Your task to perform on an android device: turn pop-ups off in chrome Image 0: 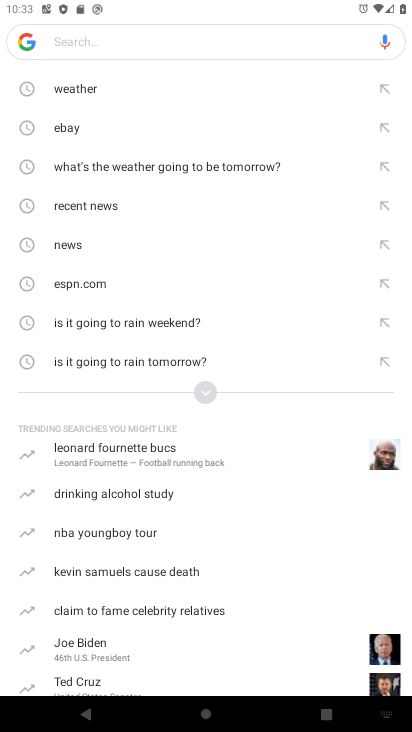
Step 0: press home button
Your task to perform on an android device: turn pop-ups off in chrome Image 1: 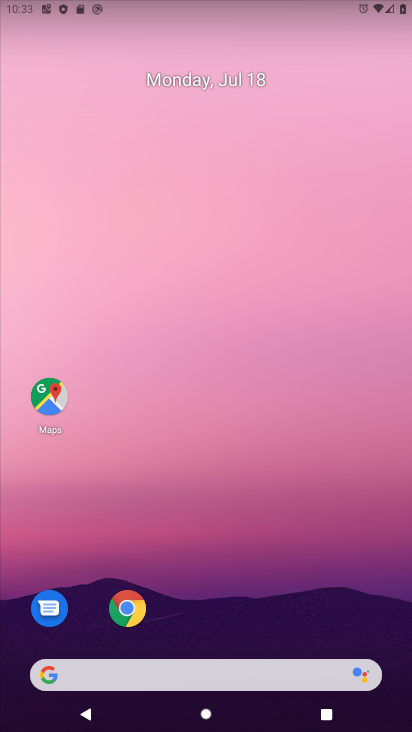
Step 1: click (122, 609)
Your task to perform on an android device: turn pop-ups off in chrome Image 2: 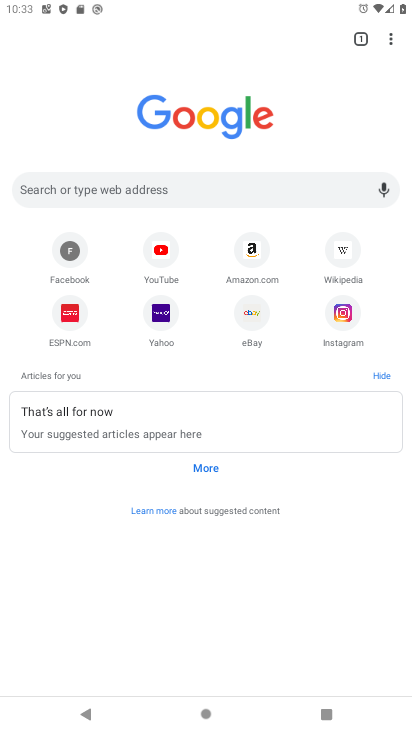
Step 2: click (396, 35)
Your task to perform on an android device: turn pop-ups off in chrome Image 3: 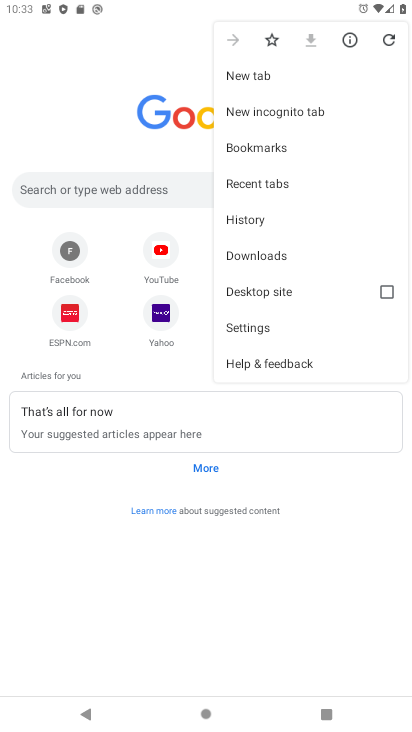
Step 3: click (267, 329)
Your task to perform on an android device: turn pop-ups off in chrome Image 4: 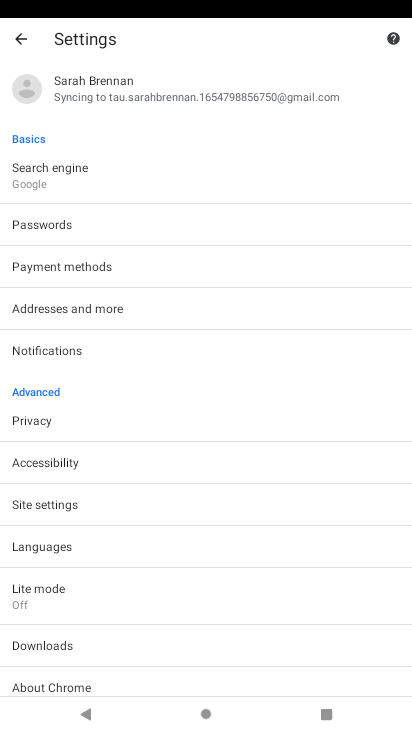
Step 4: click (37, 511)
Your task to perform on an android device: turn pop-ups off in chrome Image 5: 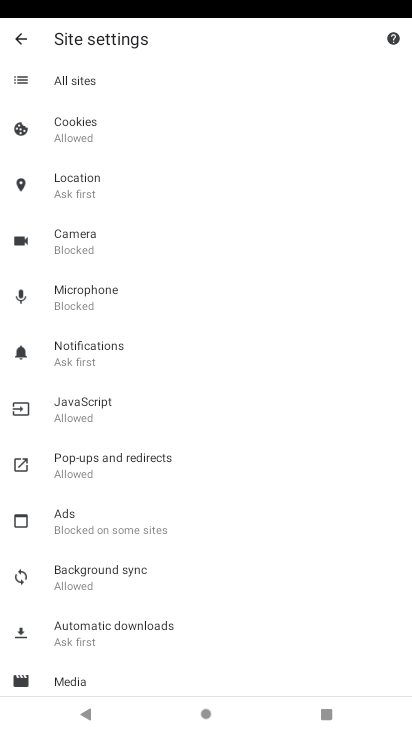
Step 5: click (65, 467)
Your task to perform on an android device: turn pop-ups off in chrome Image 6: 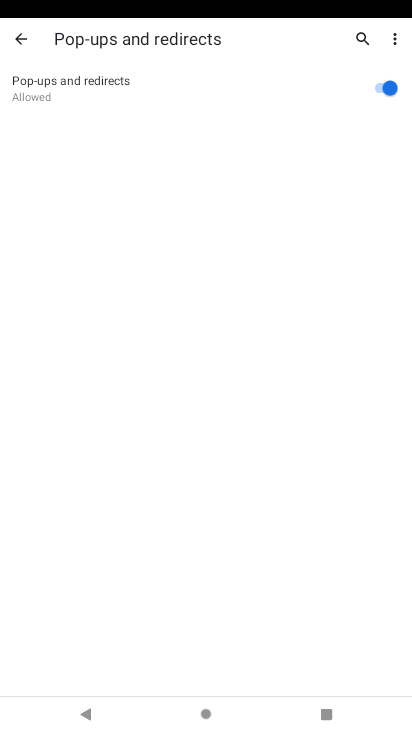
Step 6: click (386, 89)
Your task to perform on an android device: turn pop-ups off in chrome Image 7: 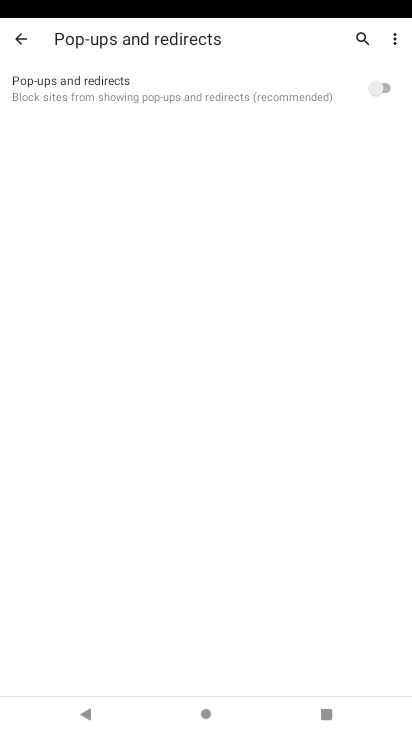
Step 7: task complete